Your task to perform on an android device: Show me popular games on the Play Store Image 0: 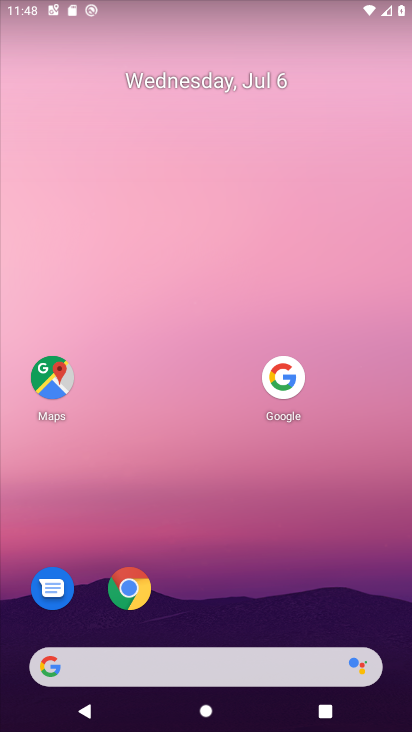
Step 0: press home button
Your task to perform on an android device: Show me popular games on the Play Store Image 1: 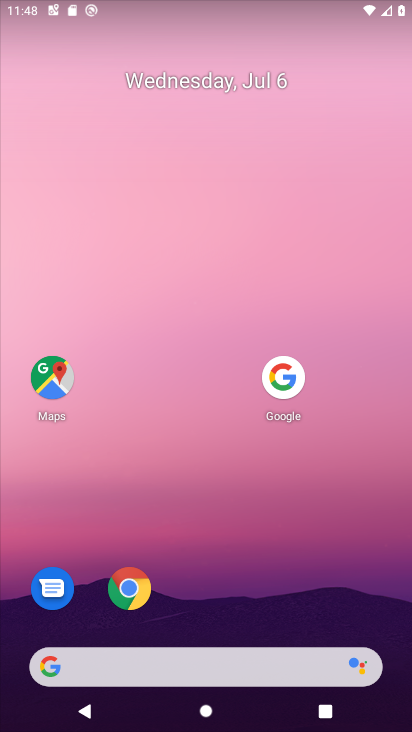
Step 1: drag from (179, 622) to (339, 17)
Your task to perform on an android device: Show me popular games on the Play Store Image 2: 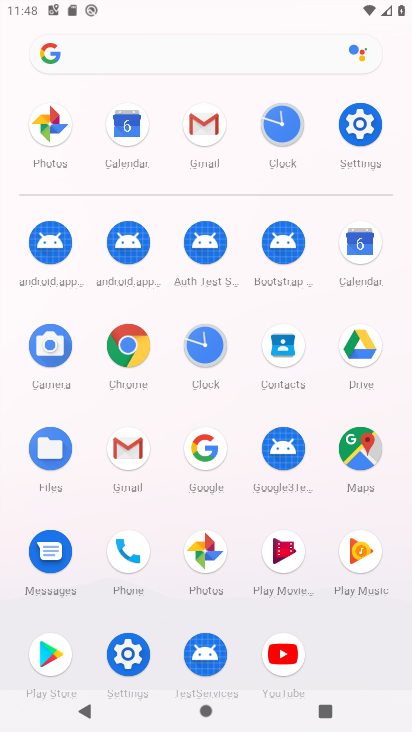
Step 2: click (60, 657)
Your task to perform on an android device: Show me popular games on the Play Store Image 3: 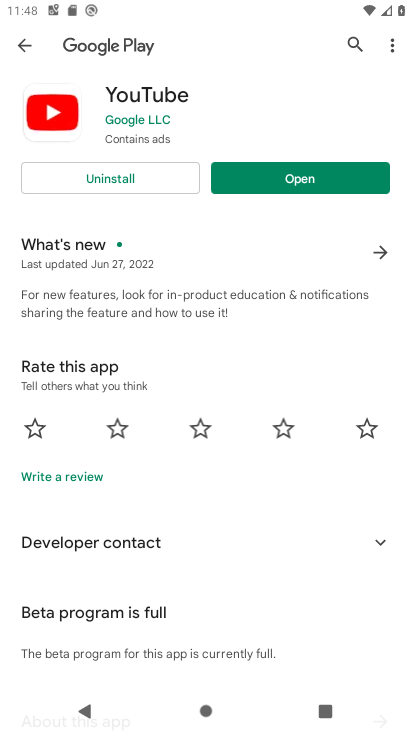
Step 3: click (25, 42)
Your task to perform on an android device: Show me popular games on the Play Store Image 4: 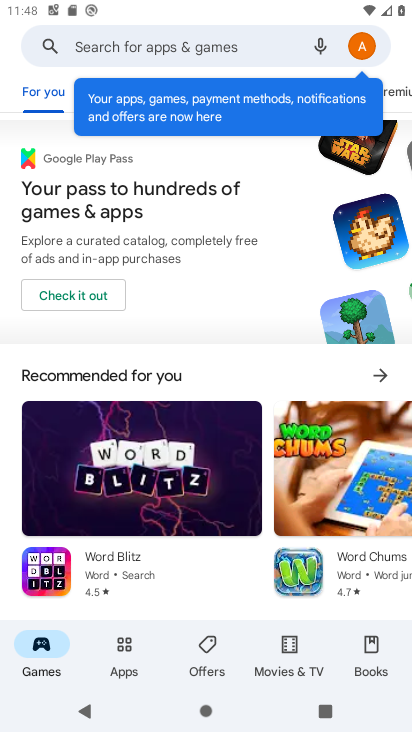
Step 4: drag from (195, 395) to (337, 0)
Your task to perform on an android device: Show me popular games on the Play Store Image 5: 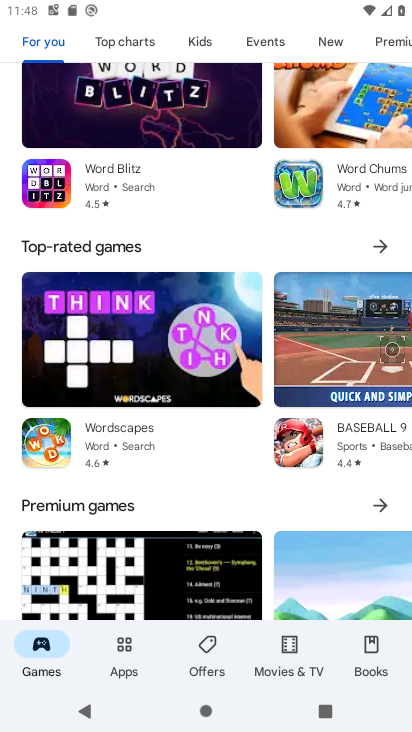
Step 5: click (386, 244)
Your task to perform on an android device: Show me popular games on the Play Store Image 6: 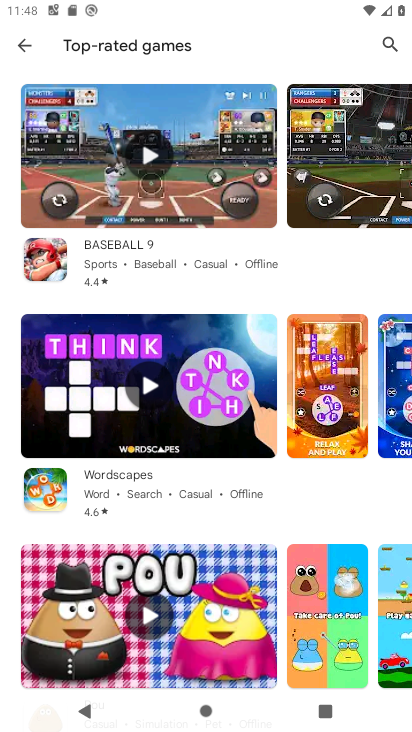
Step 6: task complete